Your task to perform on an android device: Open battery settings Image 0: 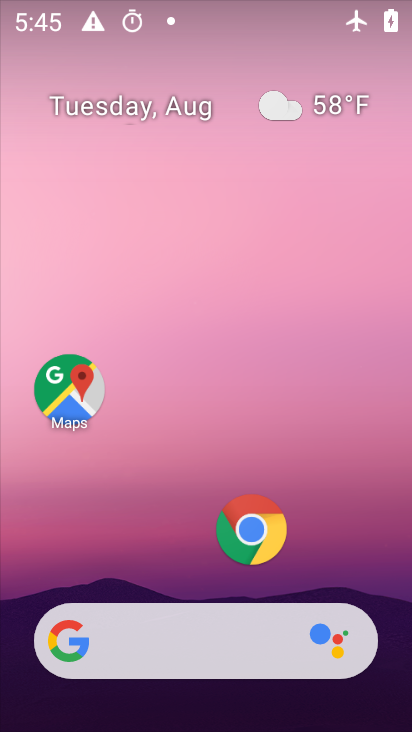
Step 0: drag from (180, 503) to (219, 185)
Your task to perform on an android device: Open battery settings Image 1: 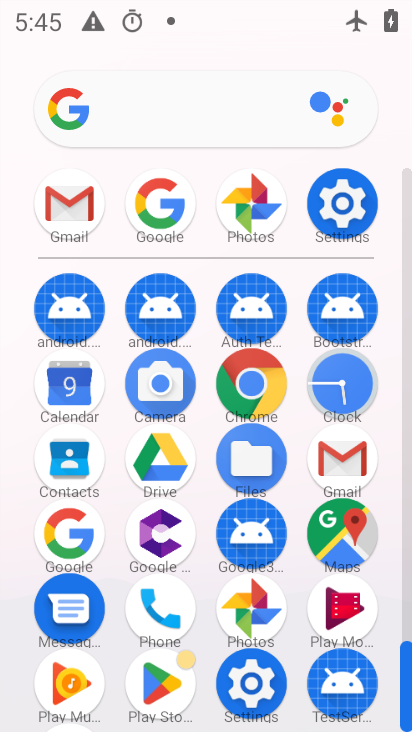
Step 1: click (328, 225)
Your task to perform on an android device: Open battery settings Image 2: 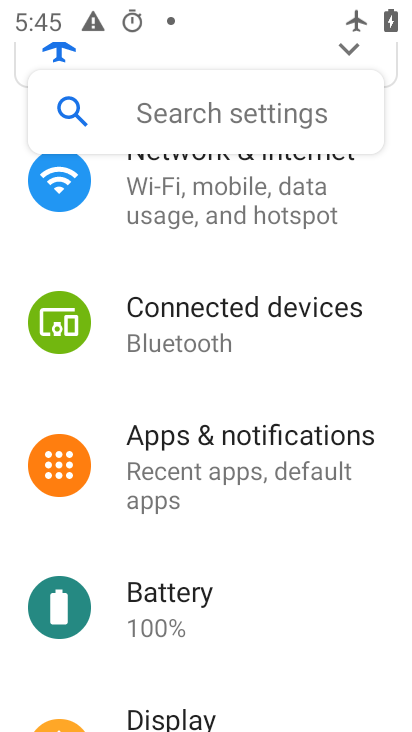
Step 2: click (150, 594)
Your task to perform on an android device: Open battery settings Image 3: 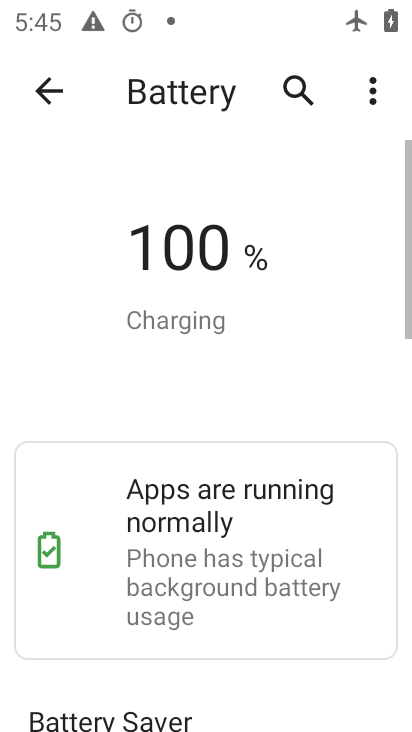
Step 3: task complete